Your task to perform on an android device: Search for vegetarian restaurants on Maps Image 0: 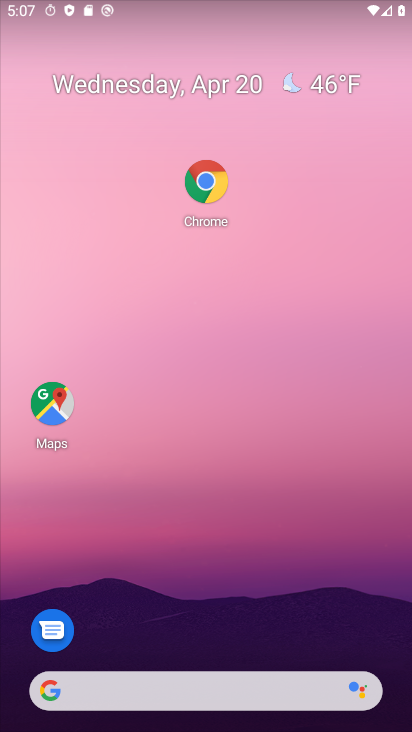
Step 0: click (48, 406)
Your task to perform on an android device: Search for vegetarian restaurants on Maps Image 1: 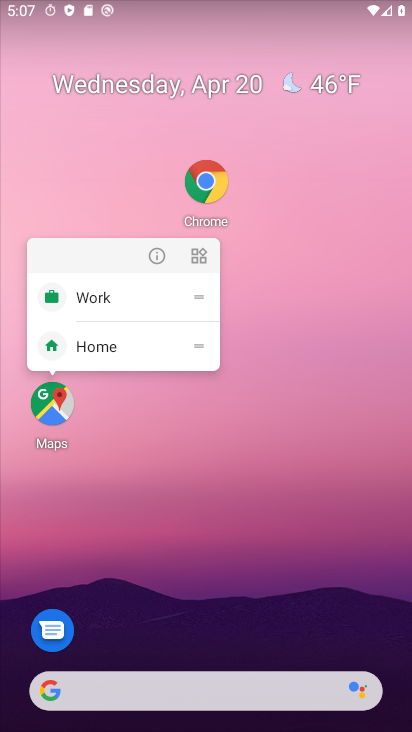
Step 1: click (49, 400)
Your task to perform on an android device: Search for vegetarian restaurants on Maps Image 2: 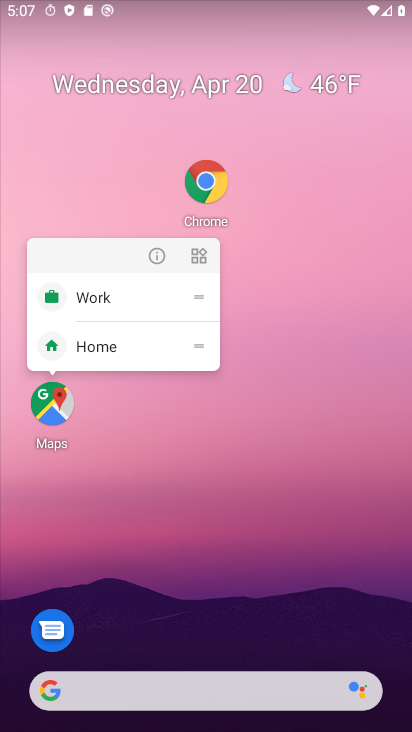
Step 2: click (49, 400)
Your task to perform on an android device: Search for vegetarian restaurants on Maps Image 3: 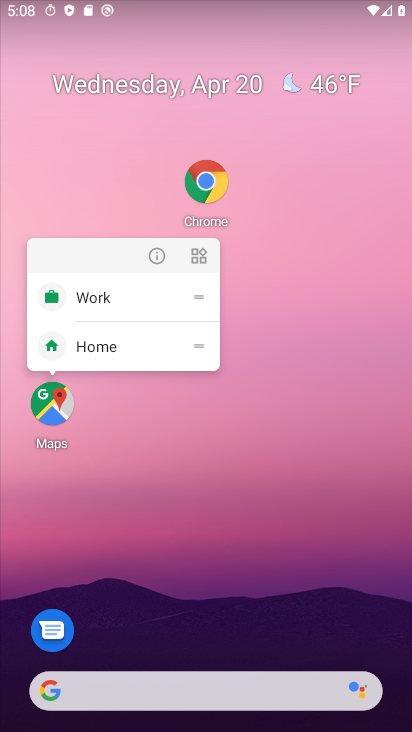
Step 3: click (50, 415)
Your task to perform on an android device: Search for vegetarian restaurants on Maps Image 4: 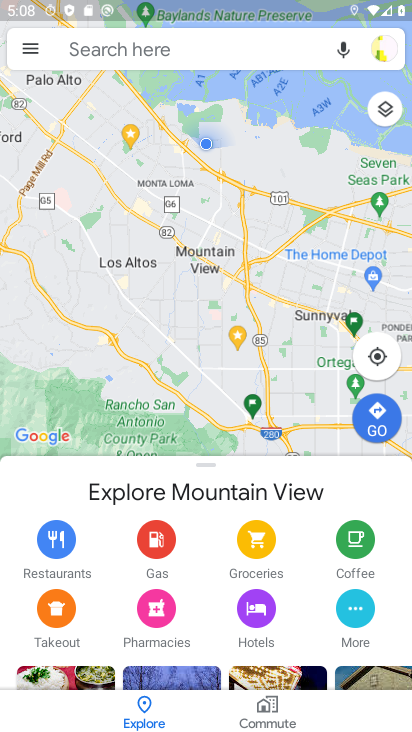
Step 4: click (171, 49)
Your task to perform on an android device: Search for vegetarian restaurants on Maps Image 5: 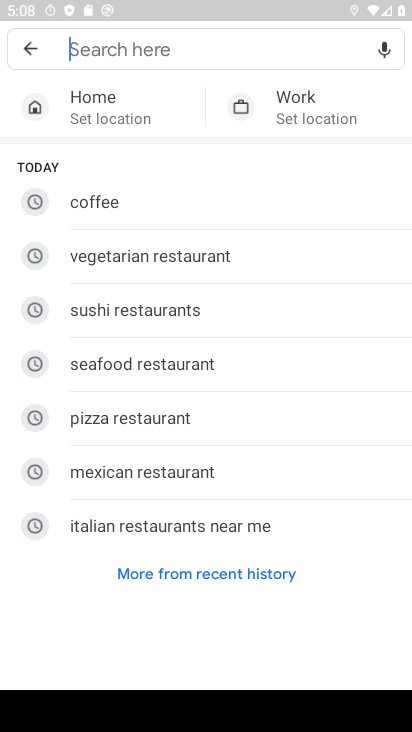
Step 5: click (138, 251)
Your task to perform on an android device: Search for vegetarian restaurants on Maps Image 6: 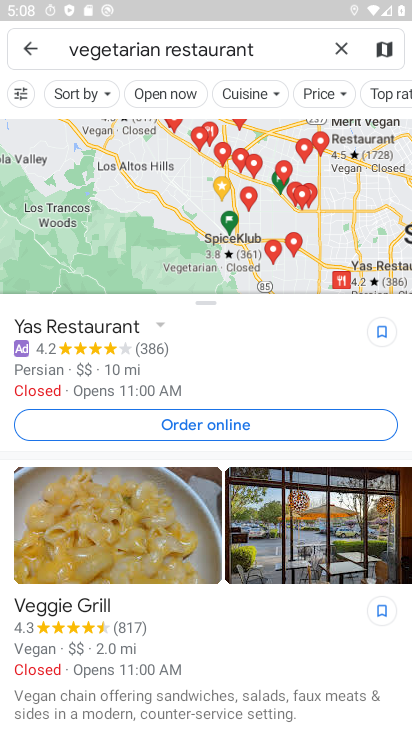
Step 6: drag from (252, 702) to (308, 366)
Your task to perform on an android device: Search for vegetarian restaurants on Maps Image 7: 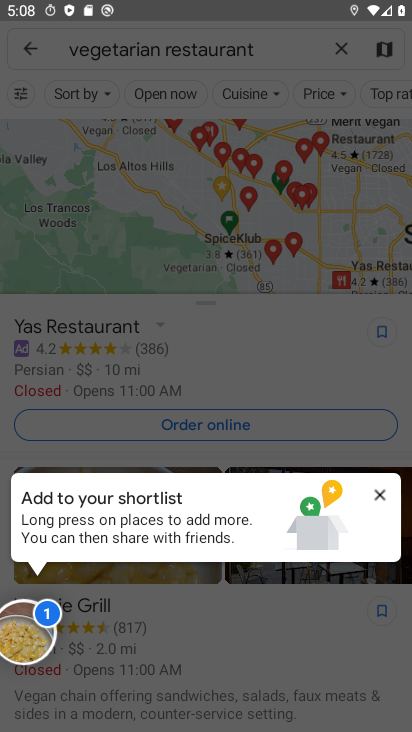
Step 7: click (381, 487)
Your task to perform on an android device: Search for vegetarian restaurants on Maps Image 8: 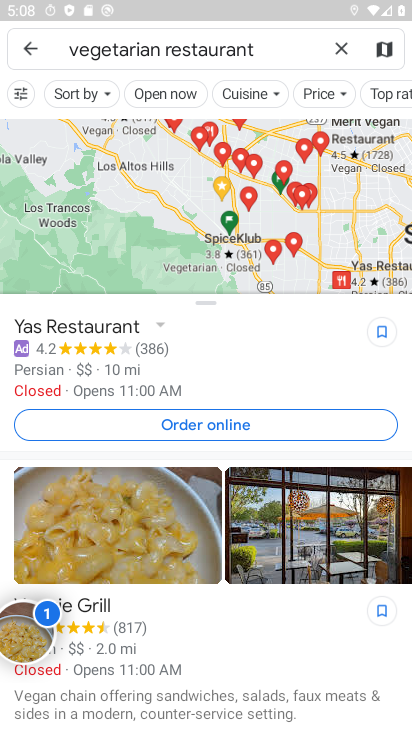
Step 8: task complete